Your task to perform on an android device: View the shopping cart on amazon.com. Add "asus rog" to the cart on amazon.com Image 0: 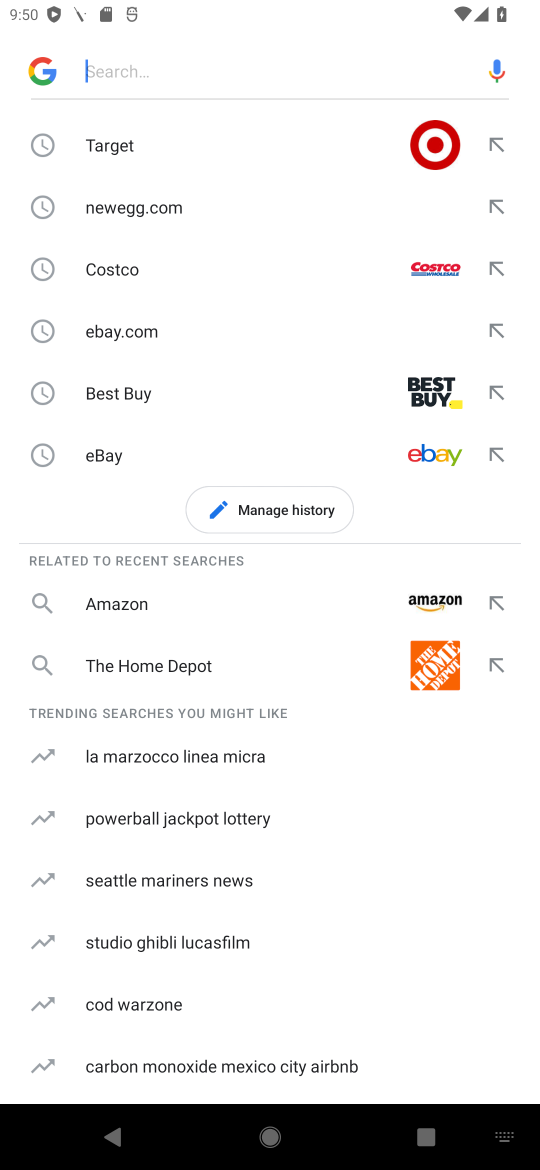
Step 0: click (106, 604)
Your task to perform on an android device: View the shopping cart on amazon.com. Add "asus rog" to the cart on amazon.com Image 1: 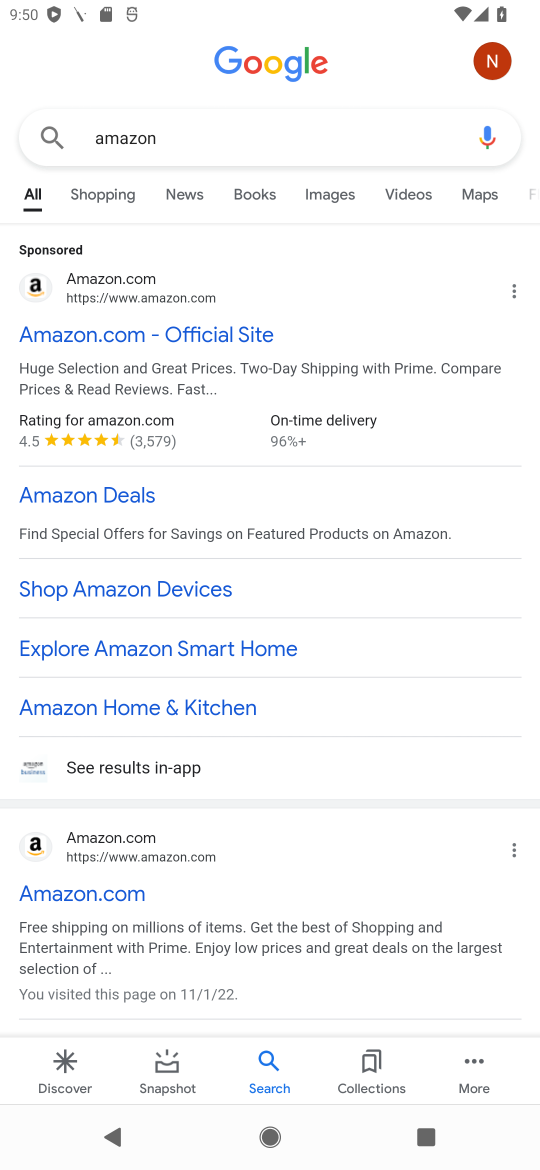
Step 1: click (92, 886)
Your task to perform on an android device: View the shopping cart on amazon.com. Add "asus rog" to the cart on amazon.com Image 2: 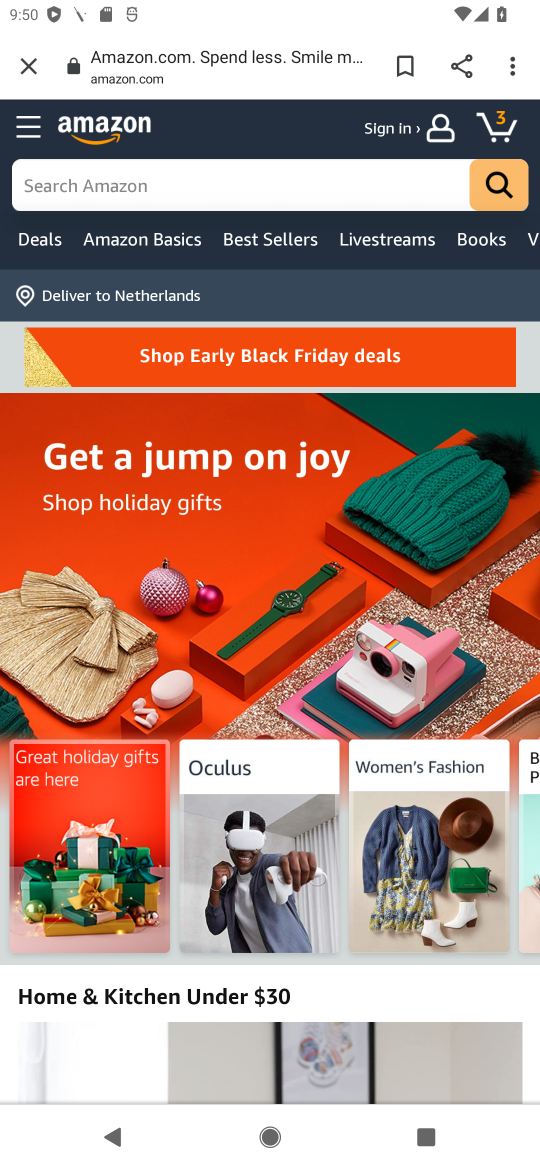
Step 2: click (128, 190)
Your task to perform on an android device: View the shopping cart on amazon.com. Add "asus rog" to the cart on amazon.com Image 3: 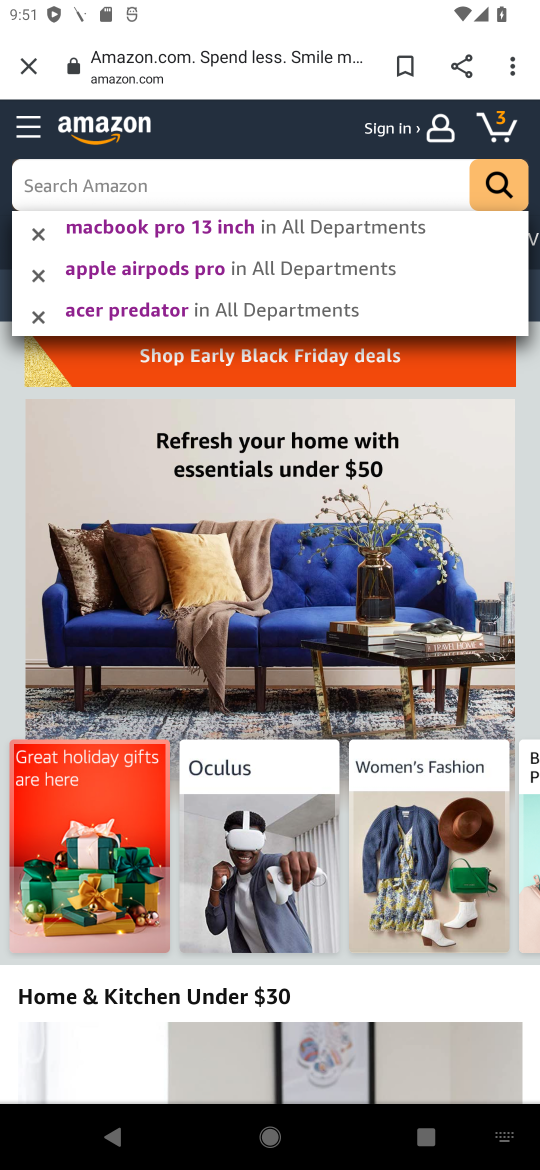
Step 3: type "asus rog"
Your task to perform on an android device: View the shopping cart on amazon.com. Add "asus rog" to the cart on amazon.com Image 4: 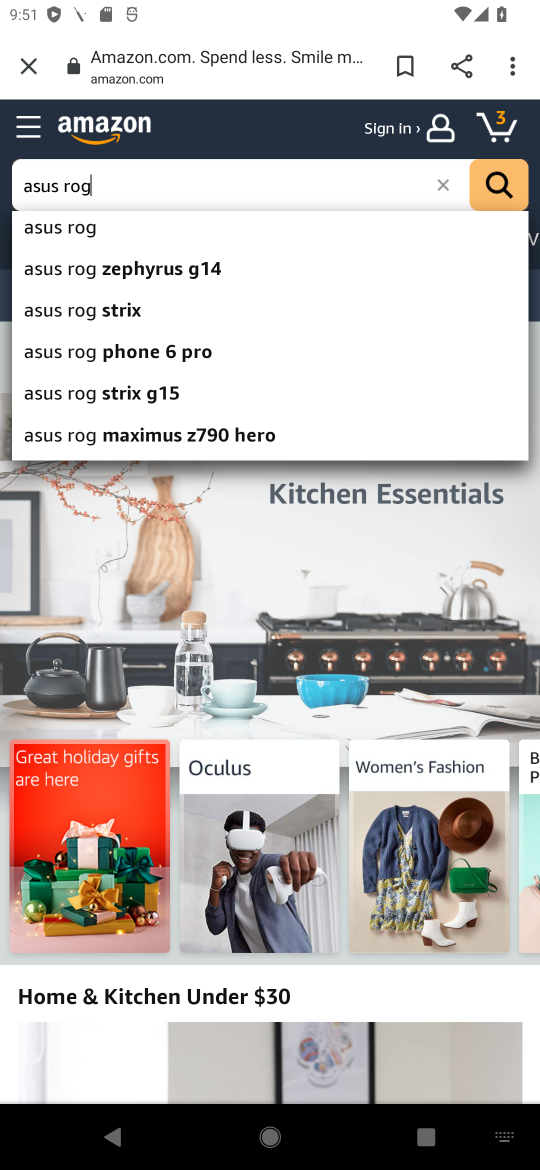
Step 4: click (75, 231)
Your task to perform on an android device: View the shopping cart on amazon.com. Add "asus rog" to the cart on amazon.com Image 5: 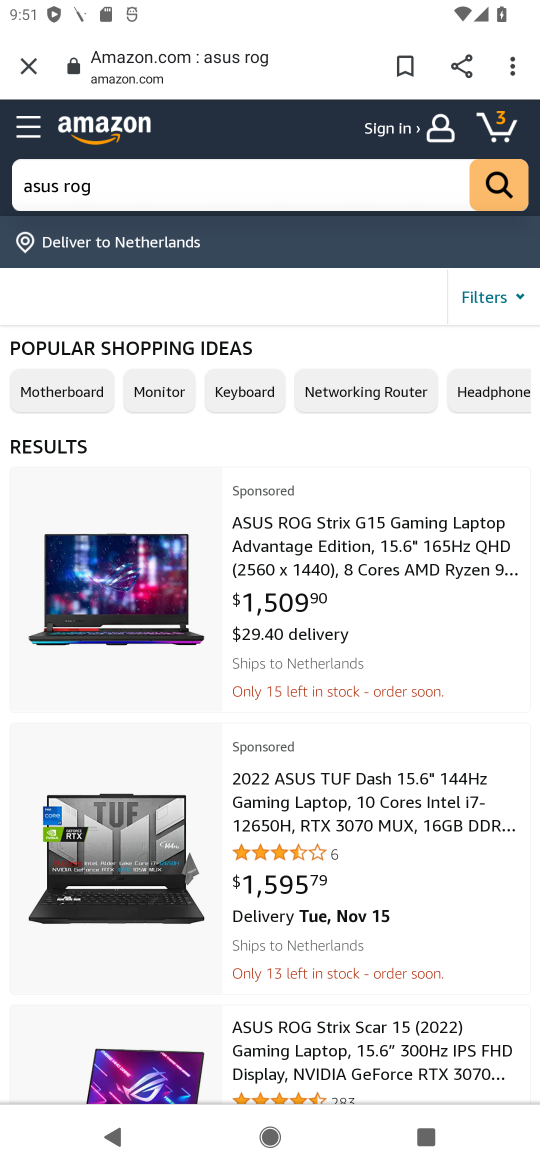
Step 5: click (356, 541)
Your task to perform on an android device: View the shopping cart on amazon.com. Add "asus rog" to the cart on amazon.com Image 6: 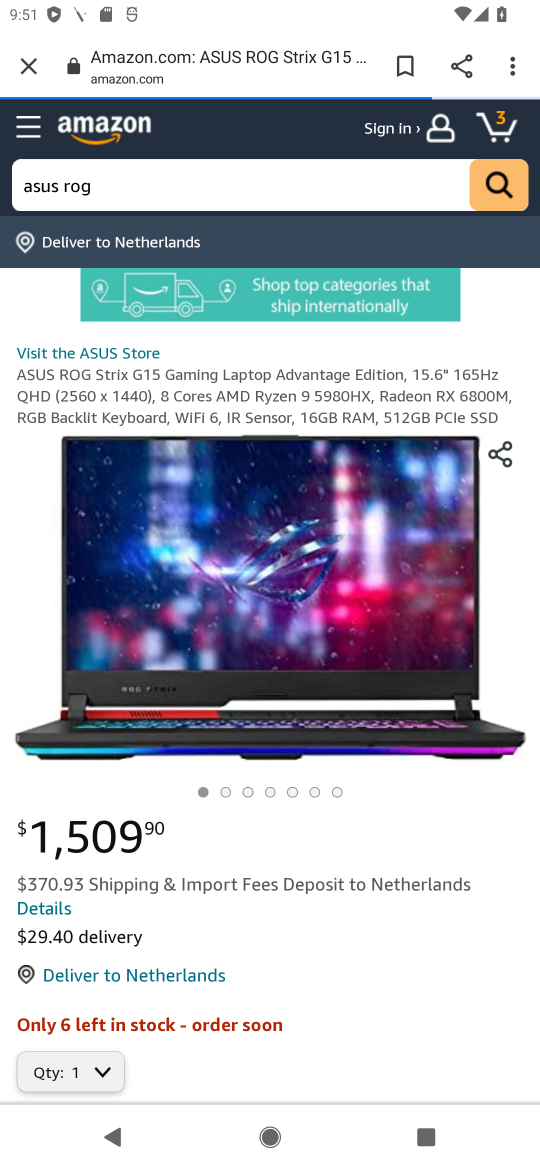
Step 6: drag from (325, 984) to (321, 657)
Your task to perform on an android device: View the shopping cart on amazon.com. Add "asus rog" to the cart on amazon.com Image 7: 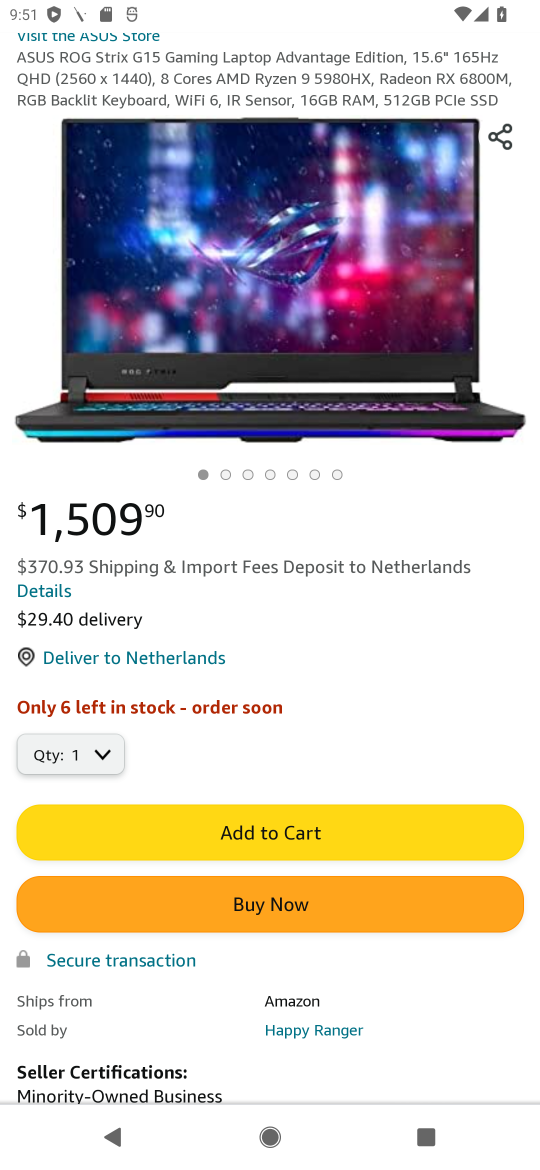
Step 7: click (283, 824)
Your task to perform on an android device: View the shopping cart on amazon.com. Add "asus rog" to the cart on amazon.com Image 8: 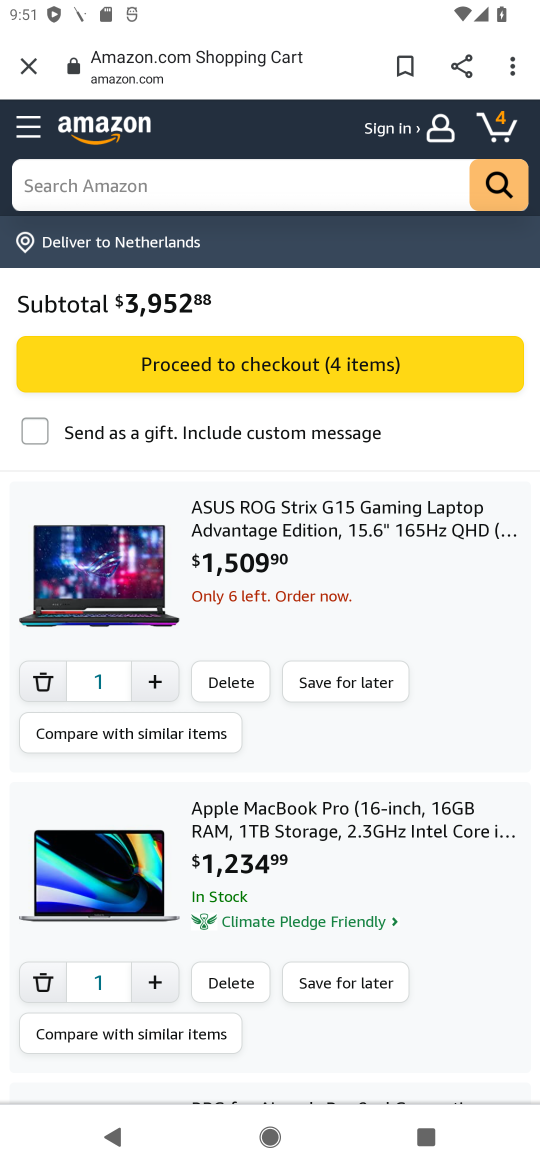
Step 8: task complete